Your task to perform on an android device: Open calendar and show me the third week of next month Image 0: 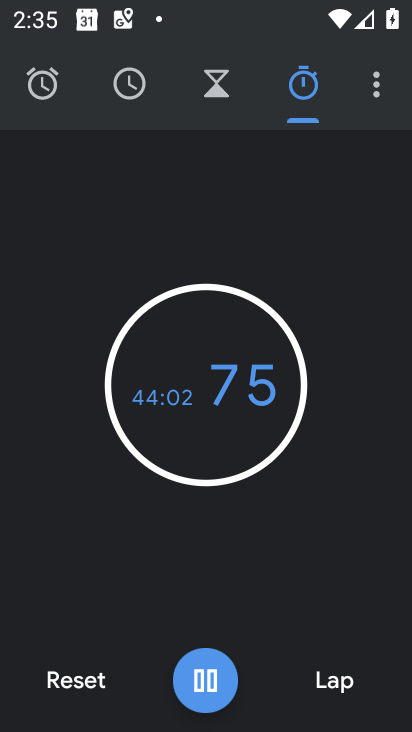
Step 0: press home button
Your task to perform on an android device: Open calendar and show me the third week of next month Image 1: 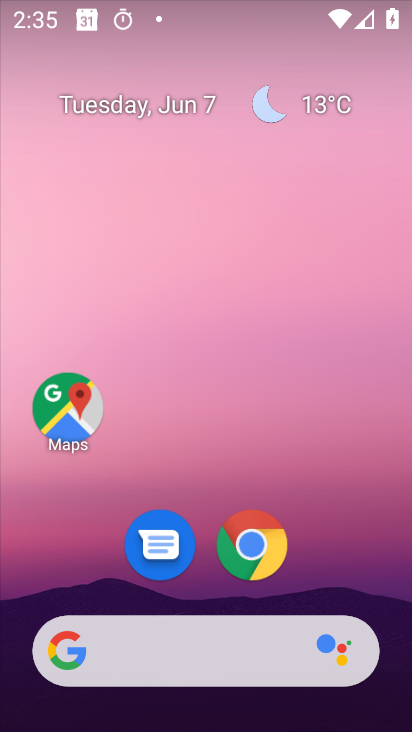
Step 1: click (158, 109)
Your task to perform on an android device: Open calendar and show me the third week of next month Image 2: 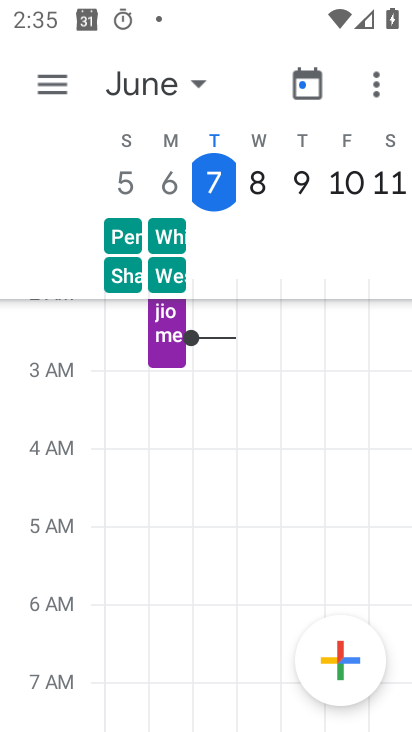
Step 2: click (175, 86)
Your task to perform on an android device: Open calendar and show me the third week of next month Image 3: 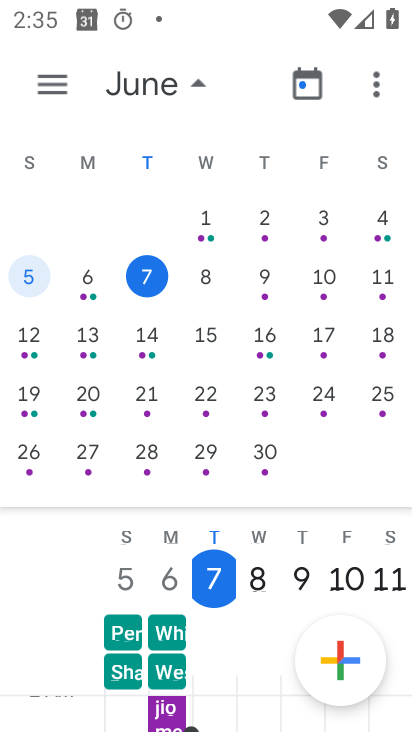
Step 3: drag from (357, 289) to (0, 357)
Your task to perform on an android device: Open calendar and show me the third week of next month Image 4: 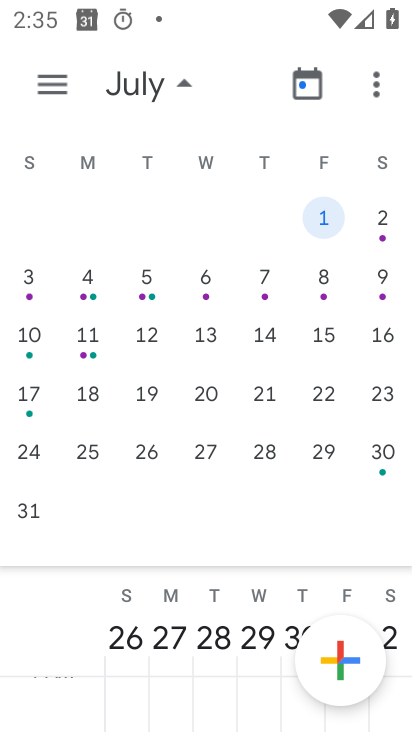
Step 4: click (42, 333)
Your task to perform on an android device: Open calendar and show me the third week of next month Image 5: 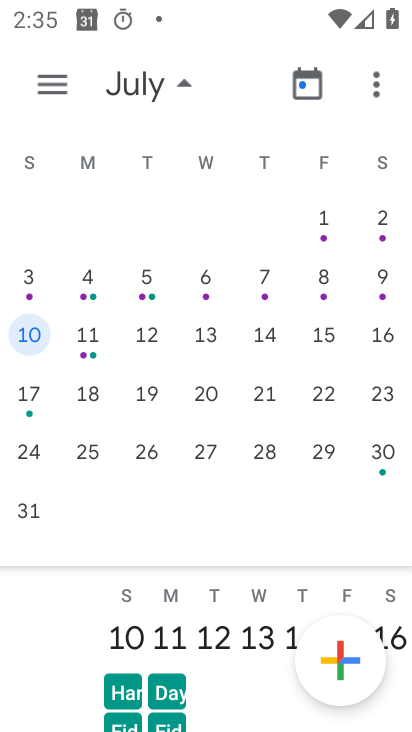
Step 5: task complete